Your task to perform on an android device: Open Yahoo.com Image 0: 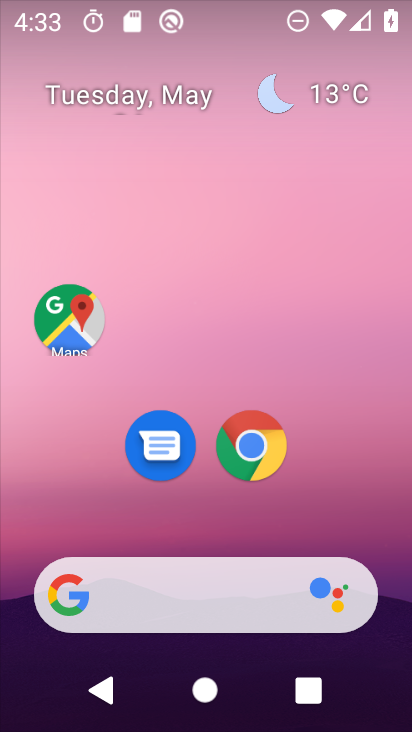
Step 0: press home button
Your task to perform on an android device: Open Yahoo.com Image 1: 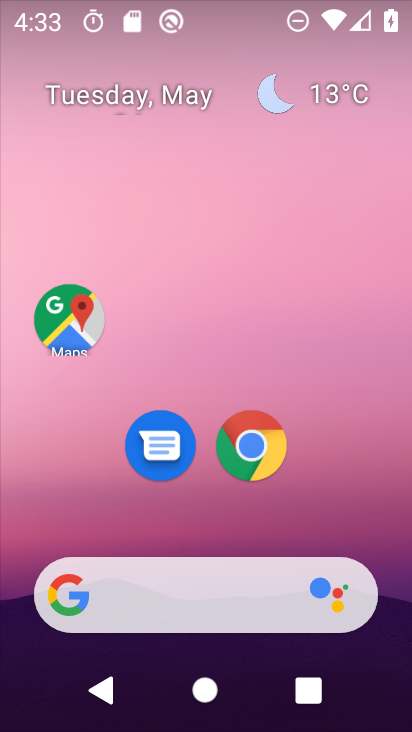
Step 1: click (251, 435)
Your task to perform on an android device: Open Yahoo.com Image 2: 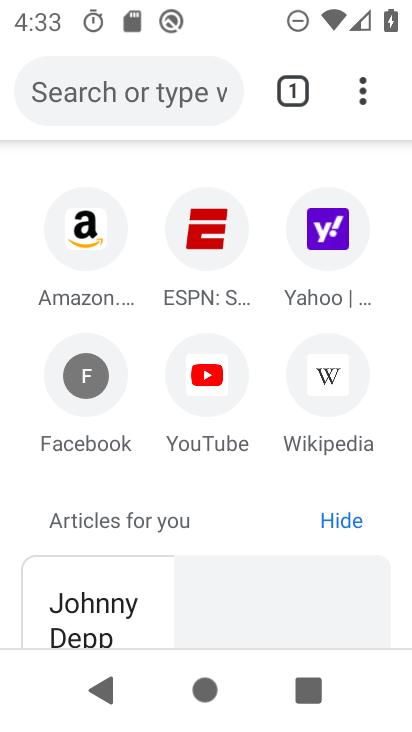
Step 2: click (323, 223)
Your task to perform on an android device: Open Yahoo.com Image 3: 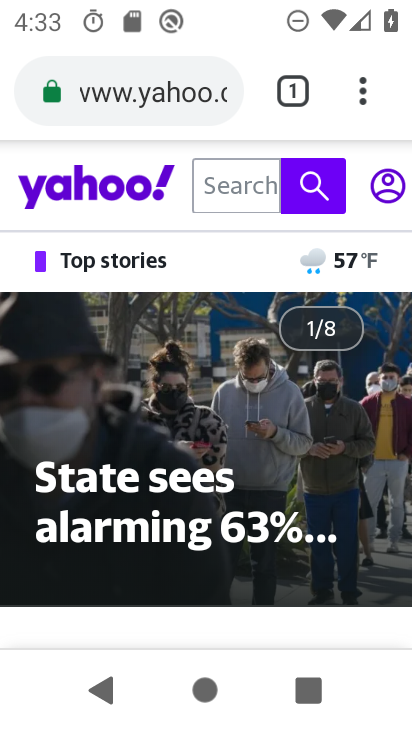
Step 3: task complete